Your task to perform on an android device: Go to display settings Image 0: 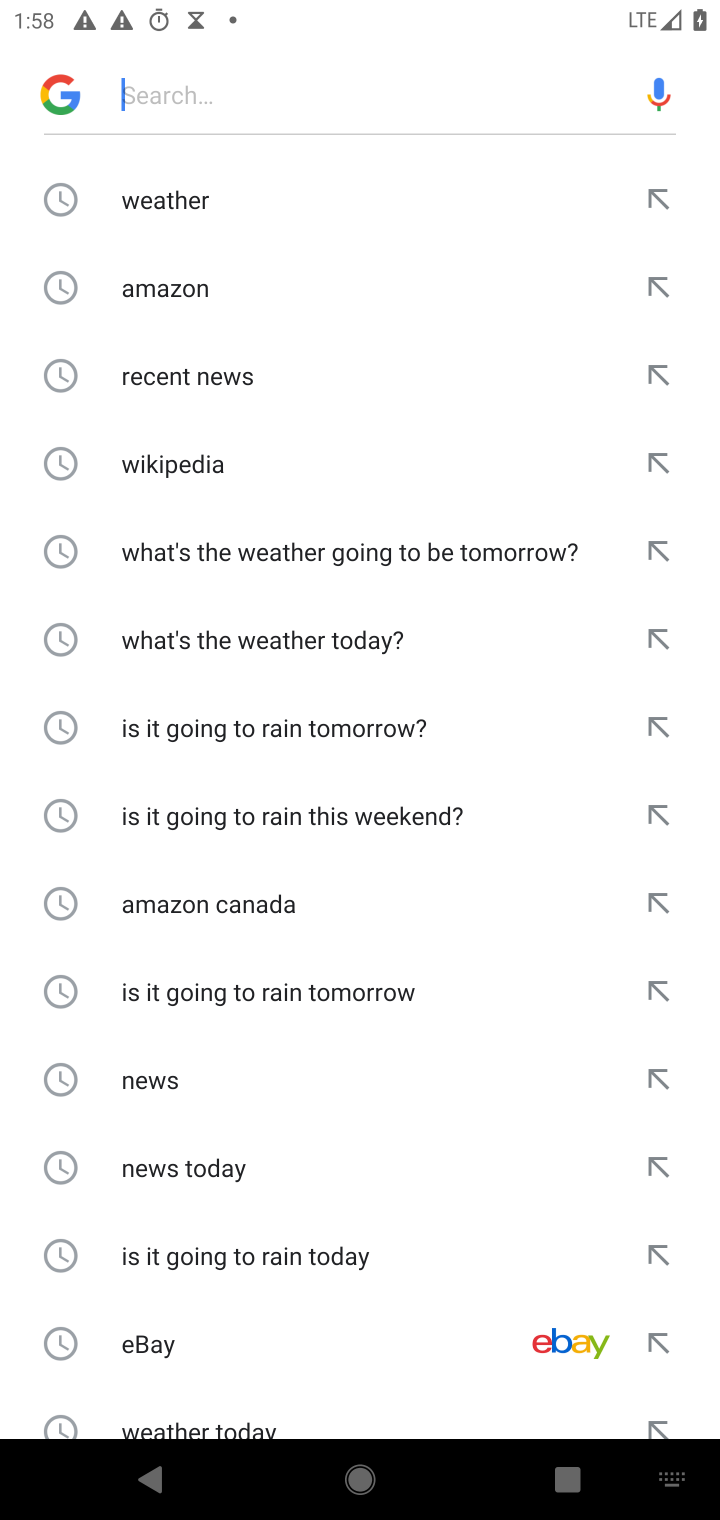
Step 0: press home button
Your task to perform on an android device: Go to display settings Image 1: 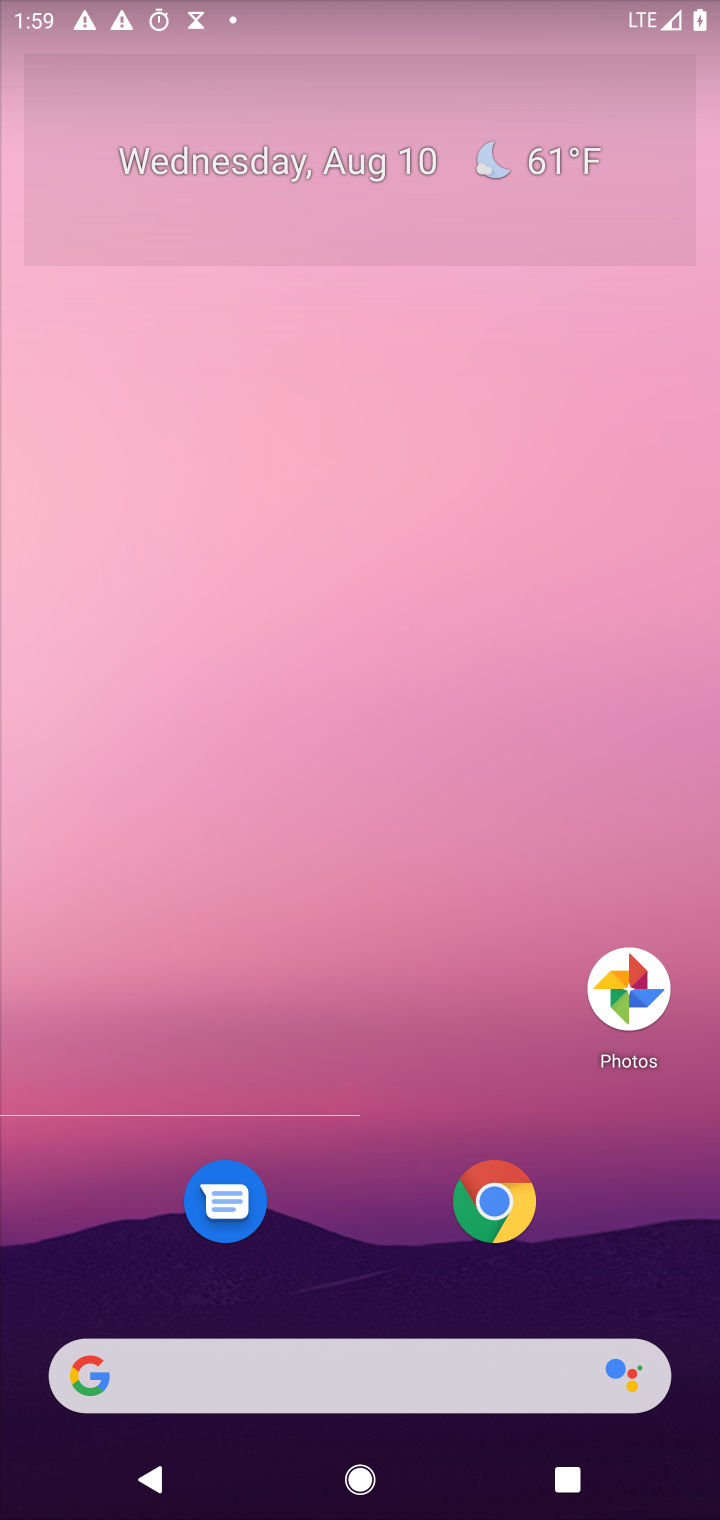
Step 1: drag from (369, 1307) to (288, 308)
Your task to perform on an android device: Go to display settings Image 2: 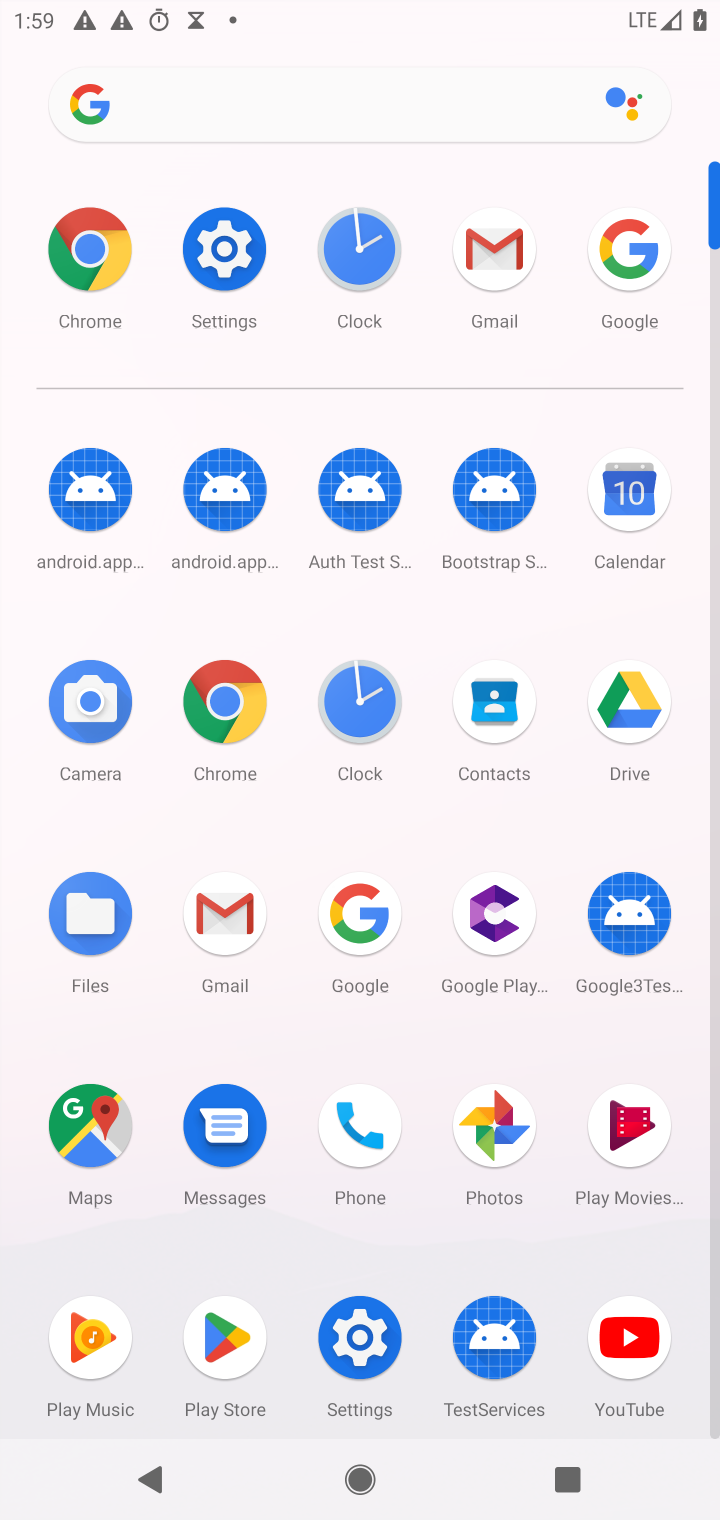
Step 2: click (221, 271)
Your task to perform on an android device: Go to display settings Image 3: 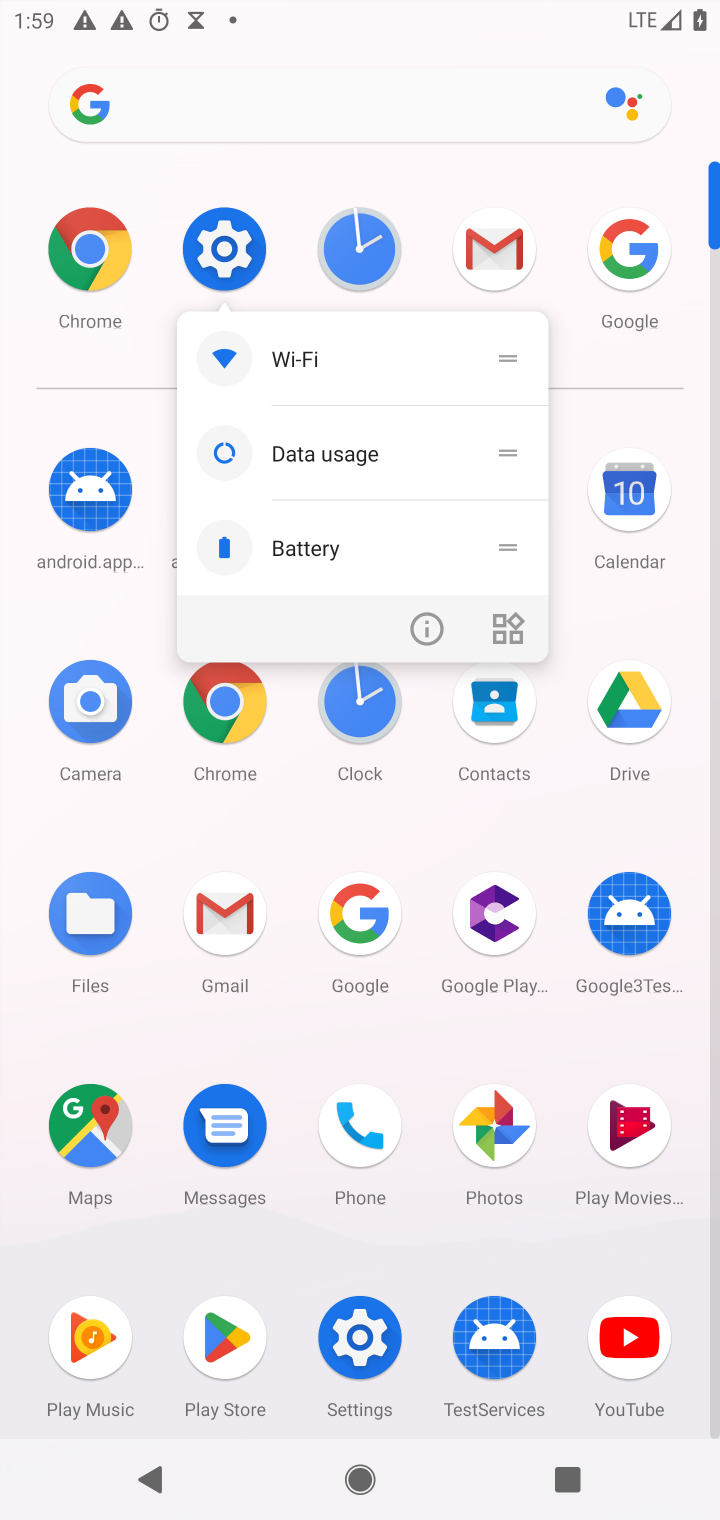
Step 3: click (221, 271)
Your task to perform on an android device: Go to display settings Image 4: 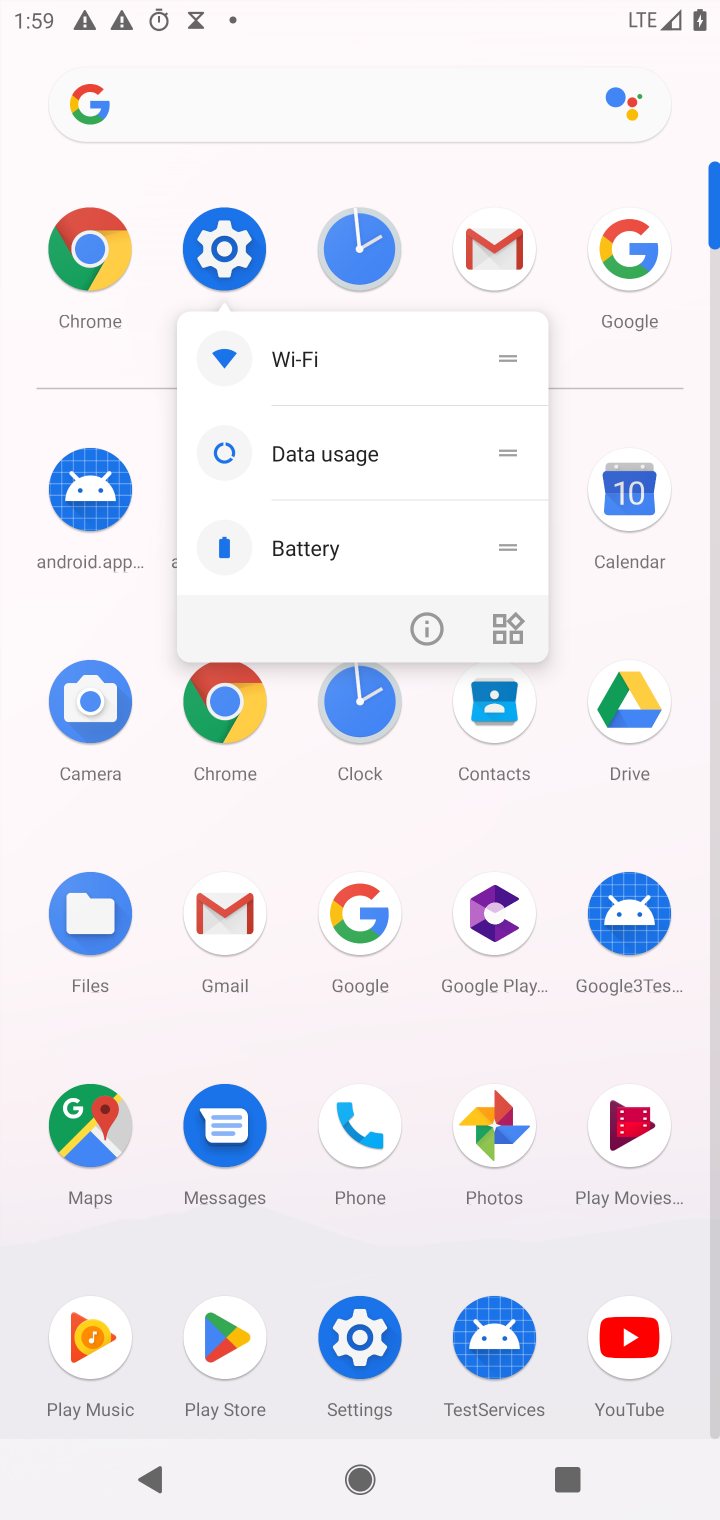
Step 4: click (221, 271)
Your task to perform on an android device: Go to display settings Image 5: 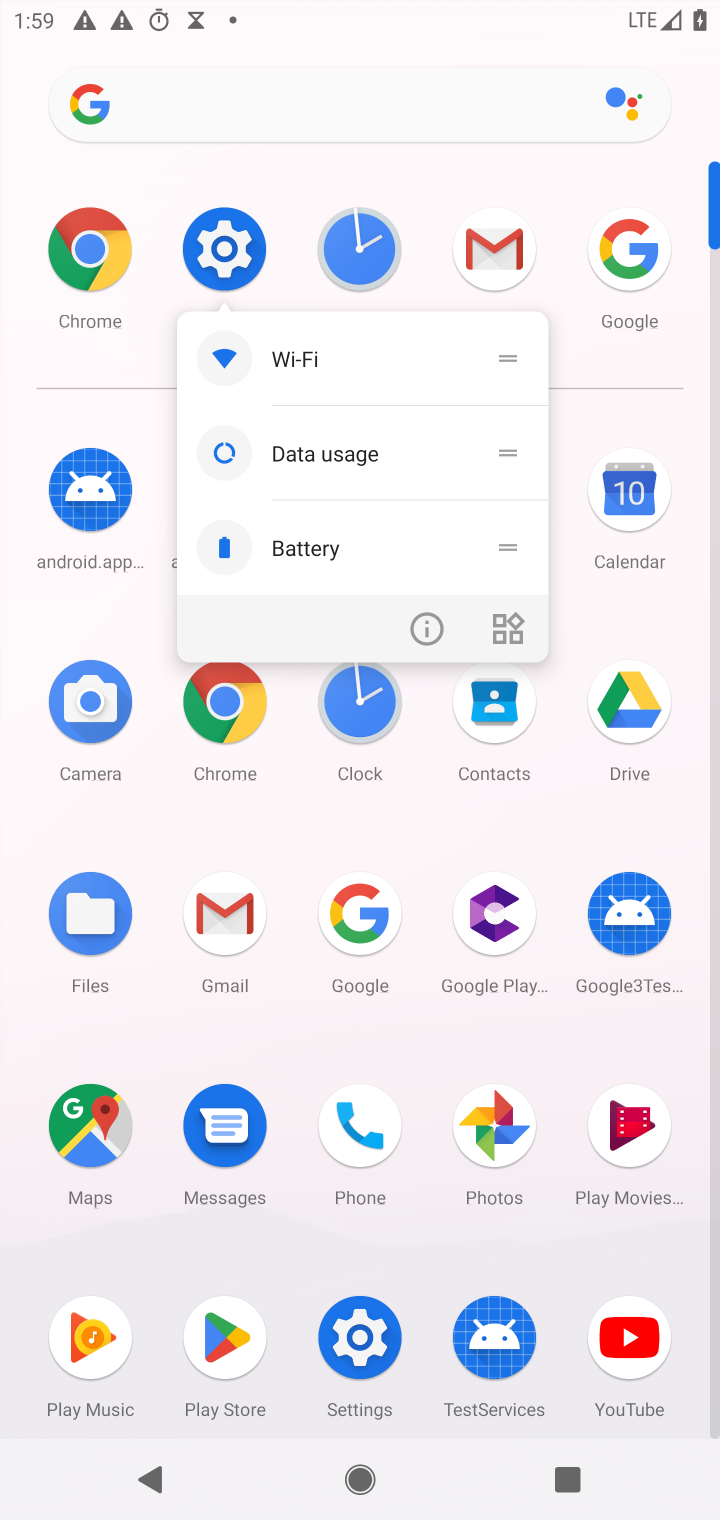
Step 5: click (221, 271)
Your task to perform on an android device: Go to display settings Image 6: 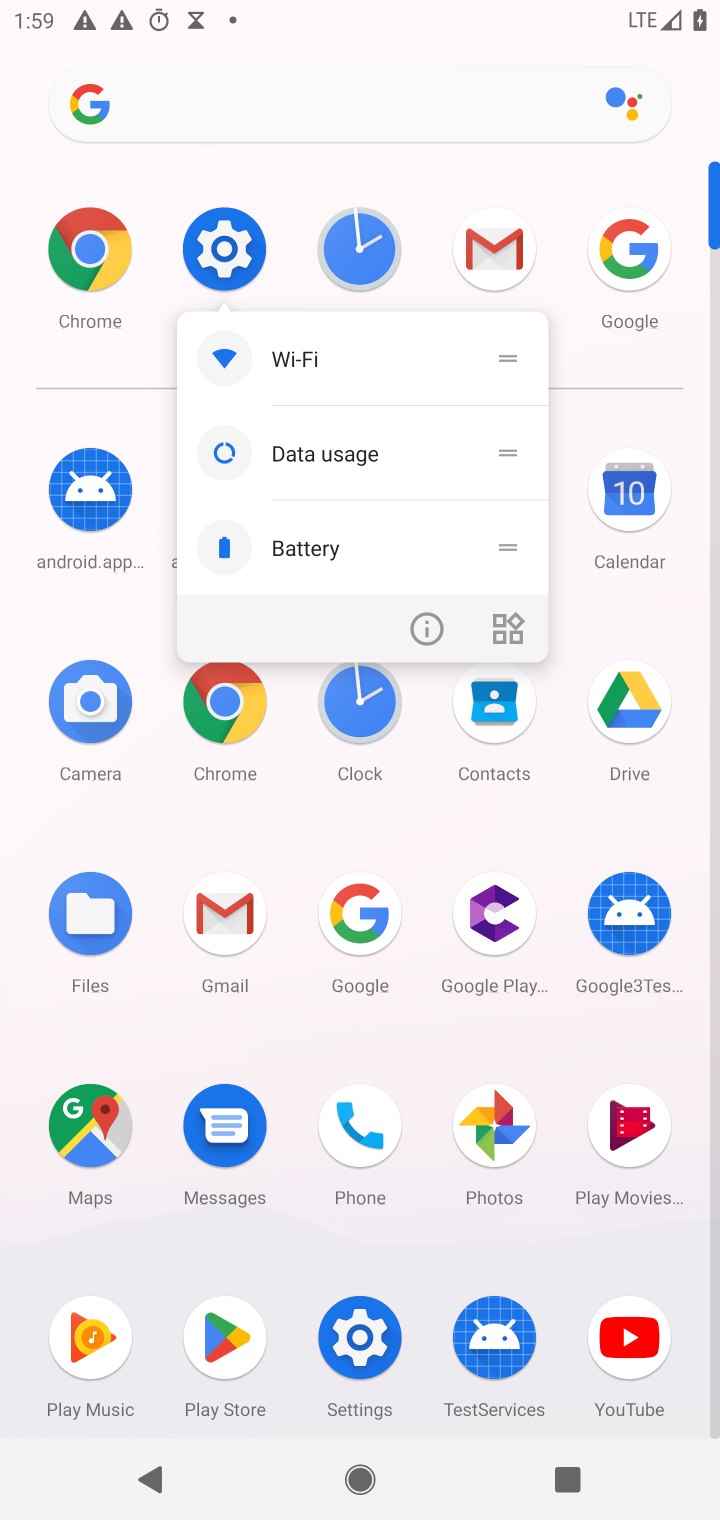
Step 6: click (222, 272)
Your task to perform on an android device: Go to display settings Image 7: 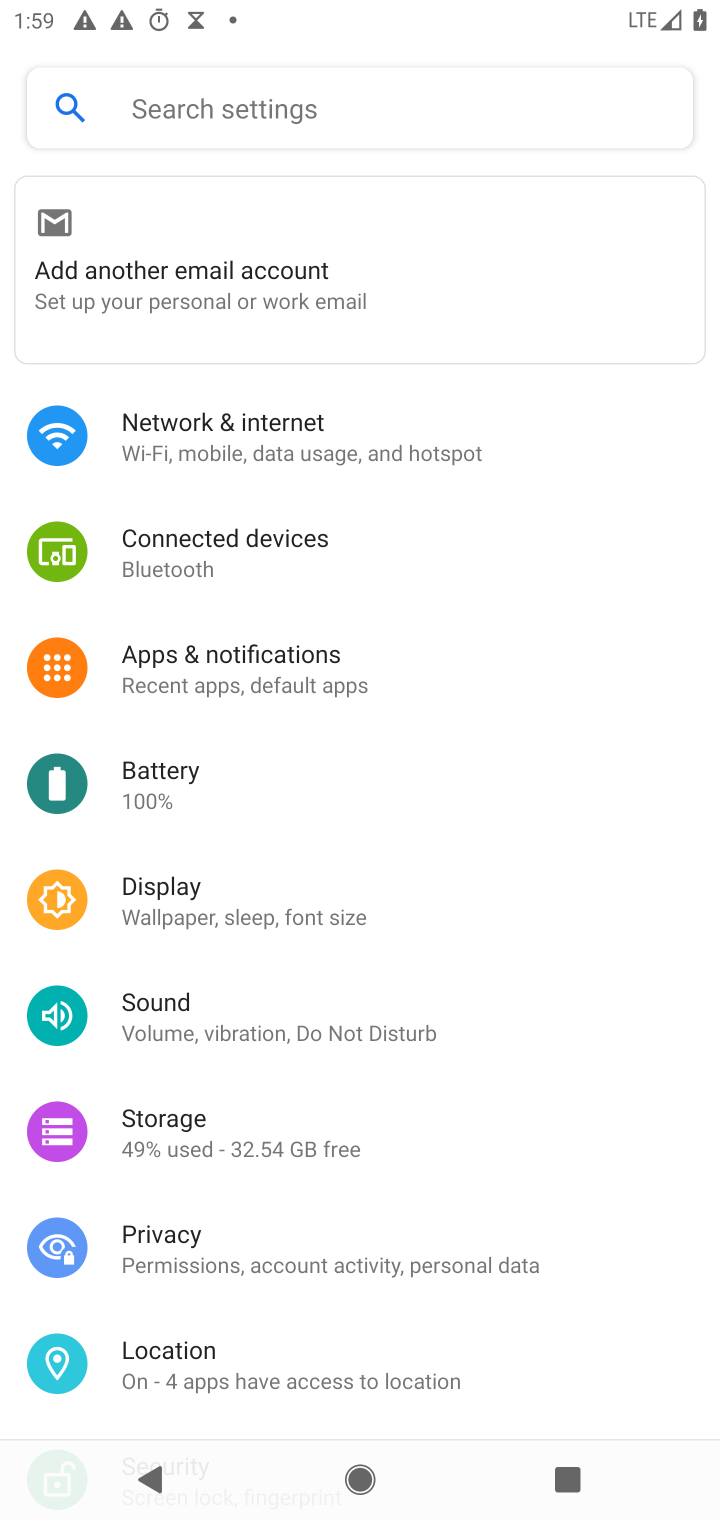
Step 7: click (180, 903)
Your task to perform on an android device: Go to display settings Image 8: 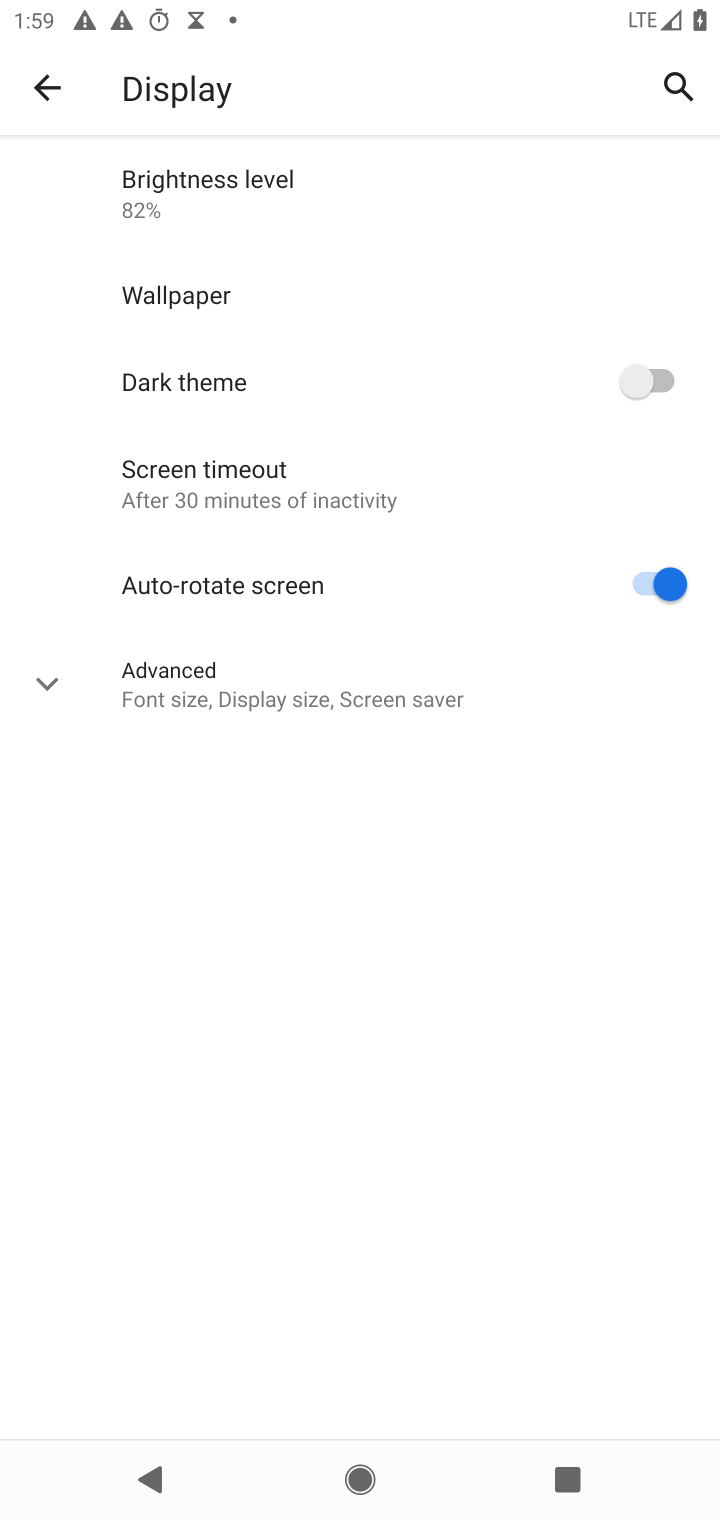
Step 8: task complete